Your task to perform on an android device: turn on improve location accuracy Image 0: 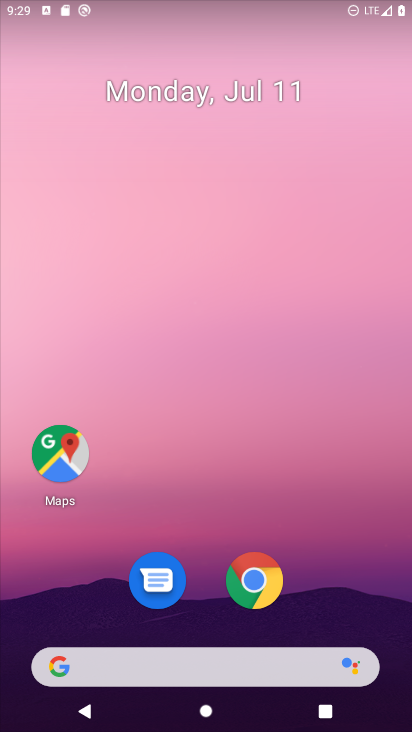
Step 0: drag from (321, 571) to (274, 24)
Your task to perform on an android device: turn on improve location accuracy Image 1: 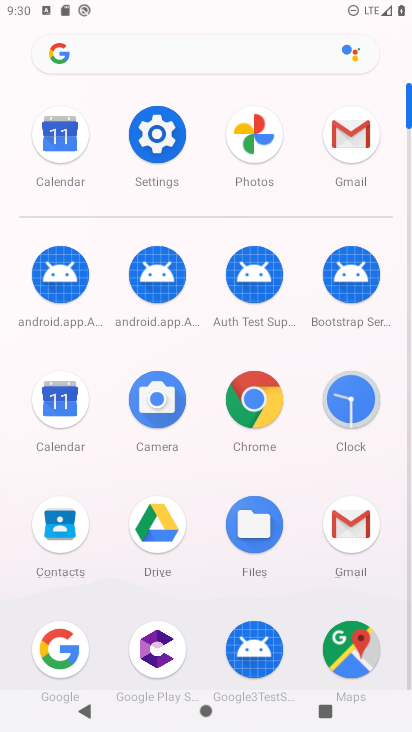
Step 1: click (176, 130)
Your task to perform on an android device: turn on improve location accuracy Image 2: 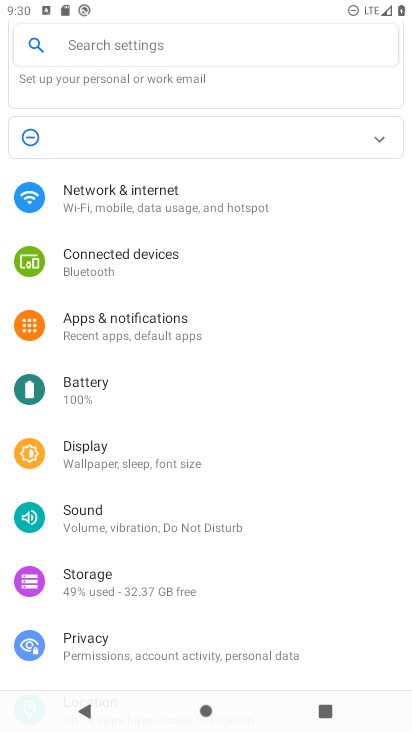
Step 2: drag from (249, 566) to (226, 105)
Your task to perform on an android device: turn on improve location accuracy Image 3: 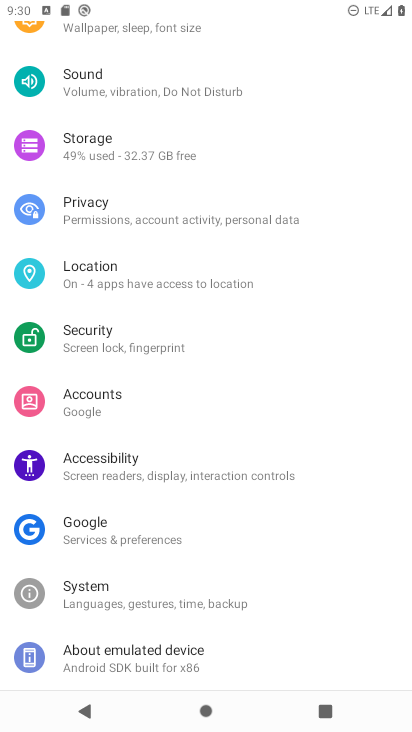
Step 3: click (145, 278)
Your task to perform on an android device: turn on improve location accuracy Image 4: 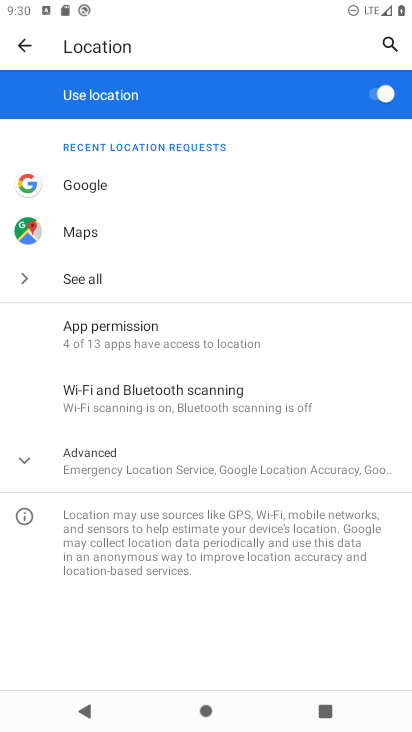
Step 4: click (21, 454)
Your task to perform on an android device: turn on improve location accuracy Image 5: 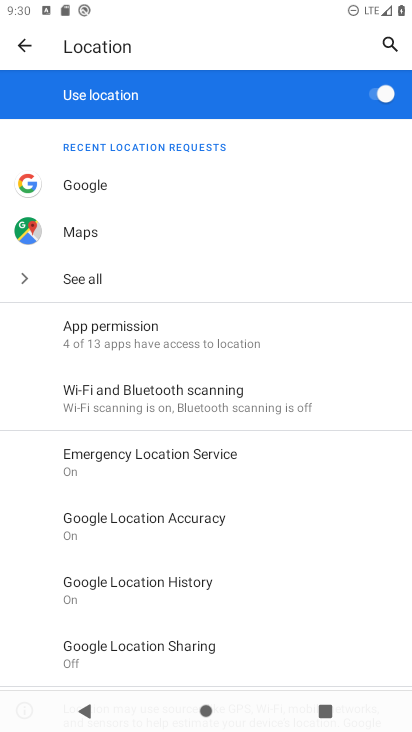
Step 5: click (128, 519)
Your task to perform on an android device: turn on improve location accuracy Image 6: 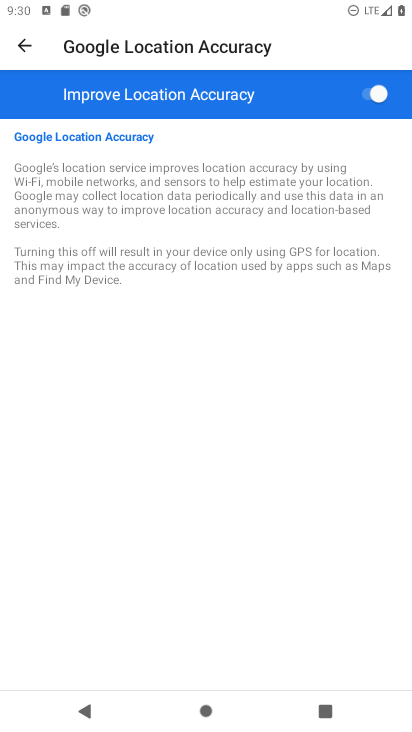
Step 6: task complete